Your task to perform on an android device: Open the map Image 0: 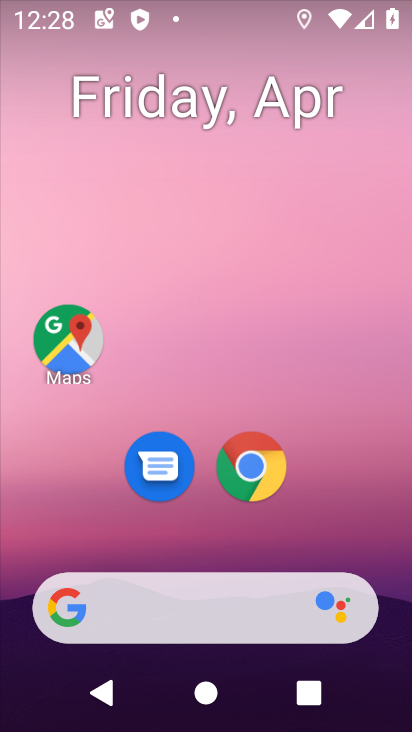
Step 0: drag from (379, 505) to (347, 120)
Your task to perform on an android device: Open the map Image 1: 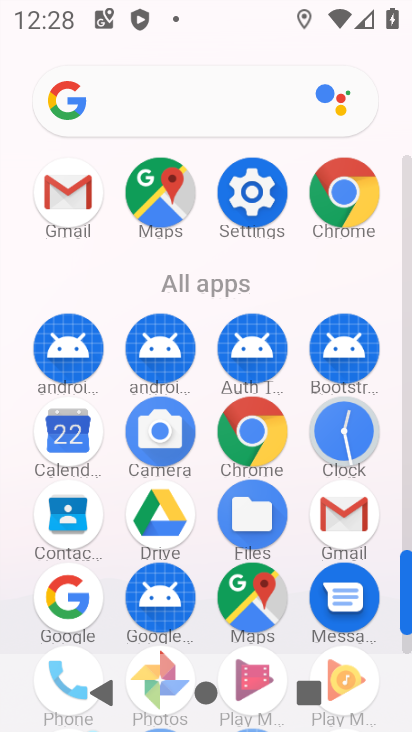
Step 1: click (239, 588)
Your task to perform on an android device: Open the map Image 2: 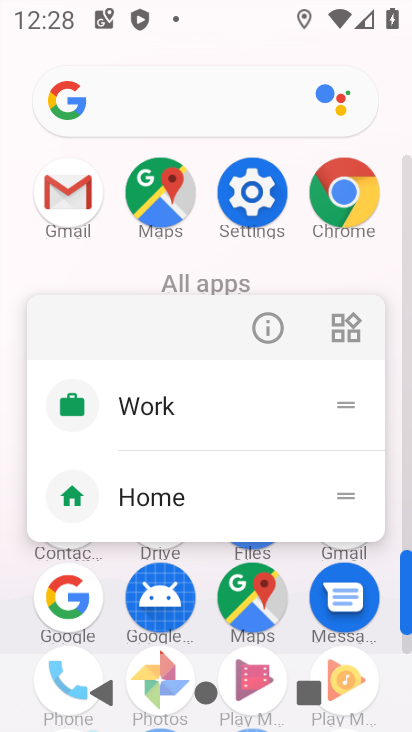
Step 2: click (256, 602)
Your task to perform on an android device: Open the map Image 3: 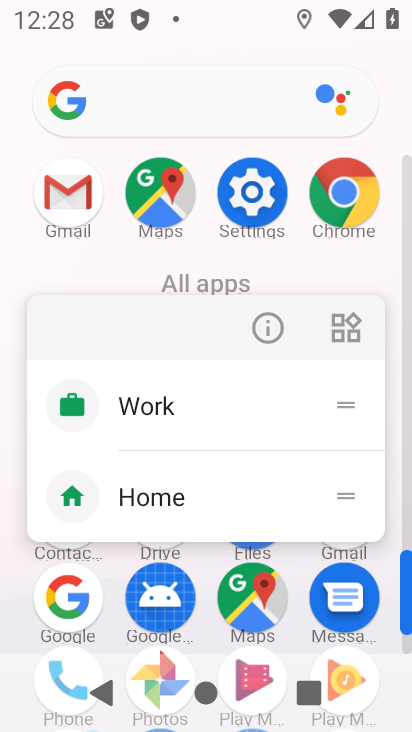
Step 3: click (253, 608)
Your task to perform on an android device: Open the map Image 4: 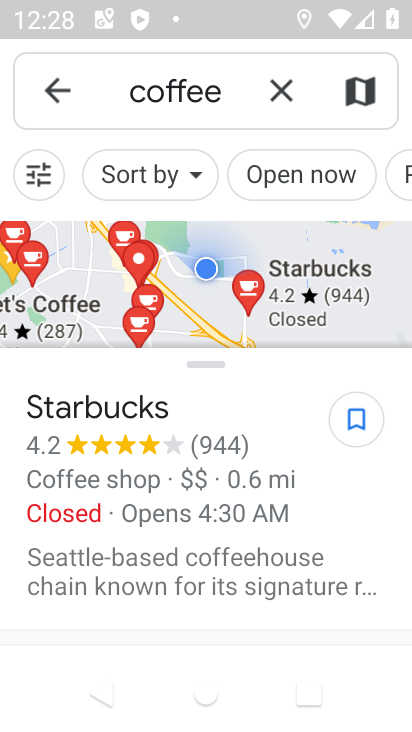
Step 4: task complete